Your task to perform on an android device: Open network settings Image 0: 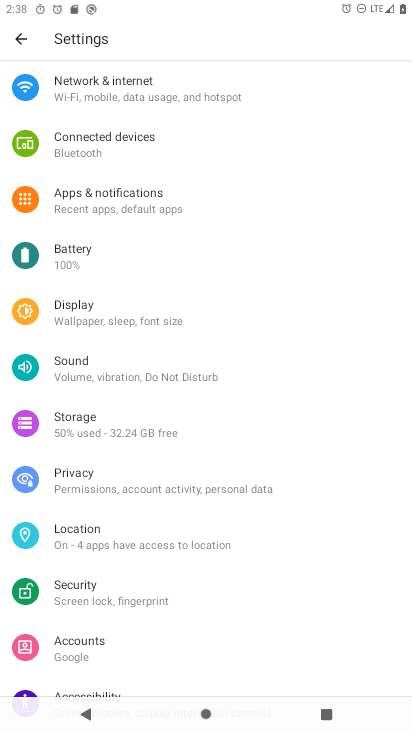
Step 0: click (89, 99)
Your task to perform on an android device: Open network settings Image 1: 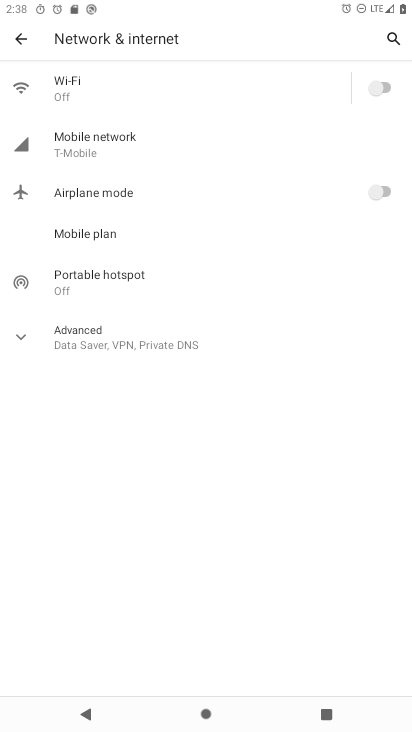
Step 1: click (77, 156)
Your task to perform on an android device: Open network settings Image 2: 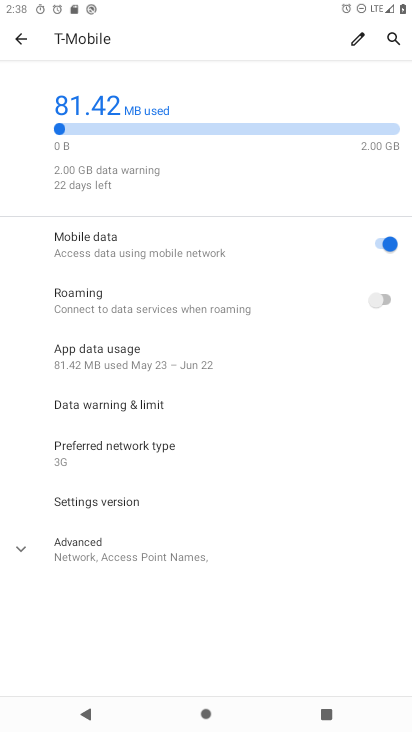
Step 2: click (18, 557)
Your task to perform on an android device: Open network settings Image 3: 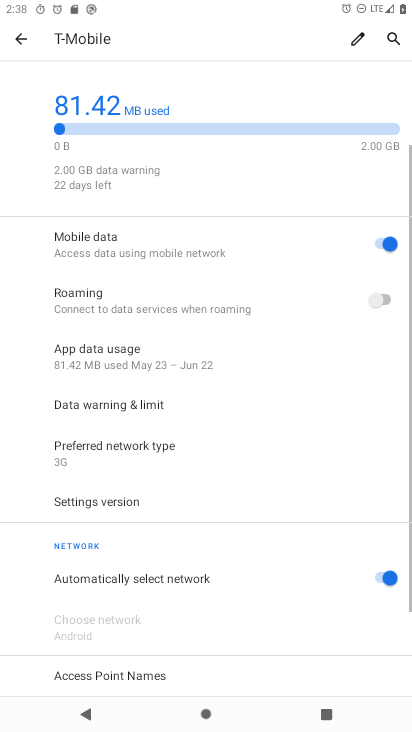
Step 3: task complete